Your task to perform on an android device: Open network settings Image 0: 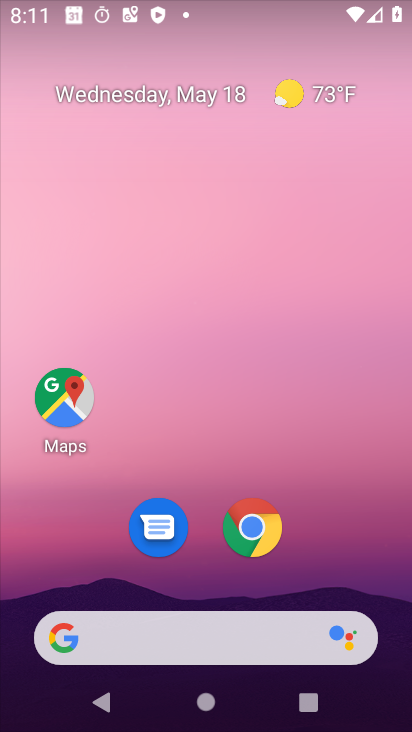
Step 0: drag from (389, 693) to (362, 72)
Your task to perform on an android device: Open network settings Image 1: 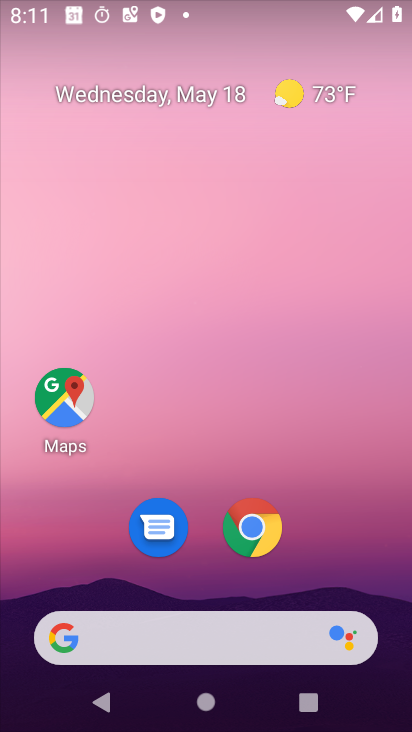
Step 1: drag from (388, 669) to (399, 1)
Your task to perform on an android device: Open network settings Image 2: 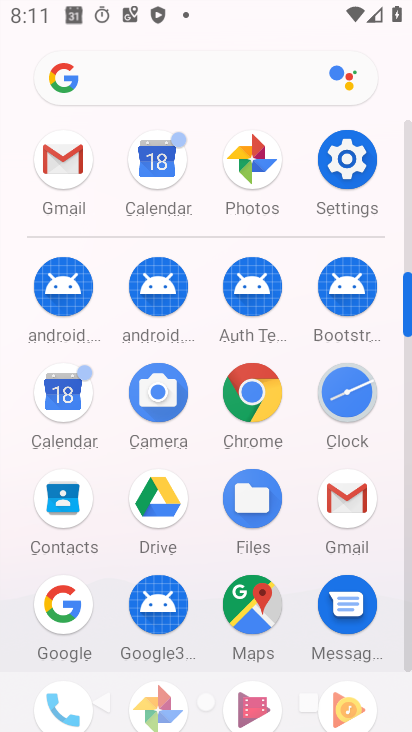
Step 2: click (349, 158)
Your task to perform on an android device: Open network settings Image 3: 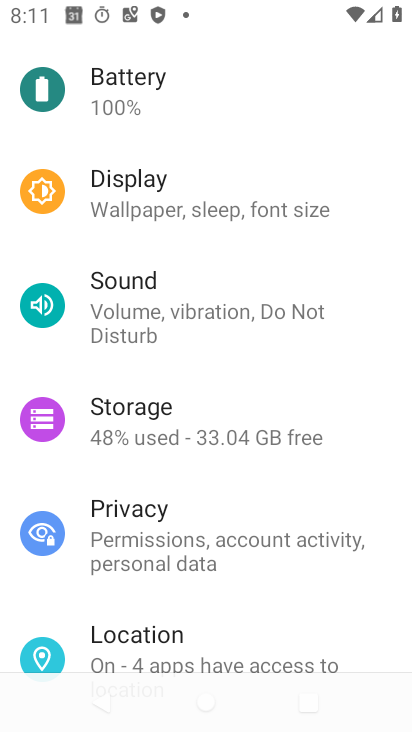
Step 3: drag from (331, 82) to (357, 662)
Your task to perform on an android device: Open network settings Image 4: 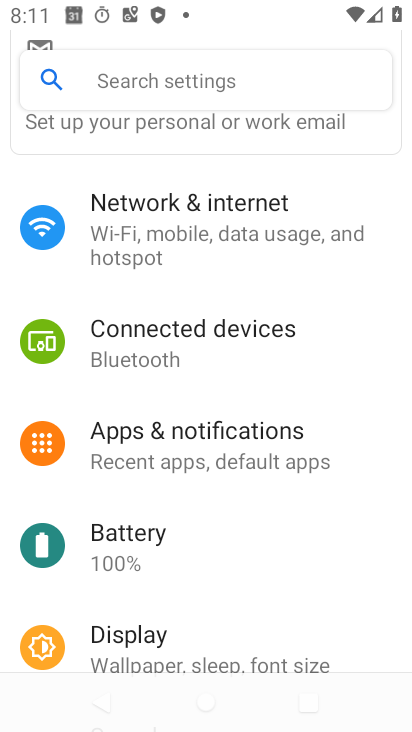
Step 4: click (143, 210)
Your task to perform on an android device: Open network settings Image 5: 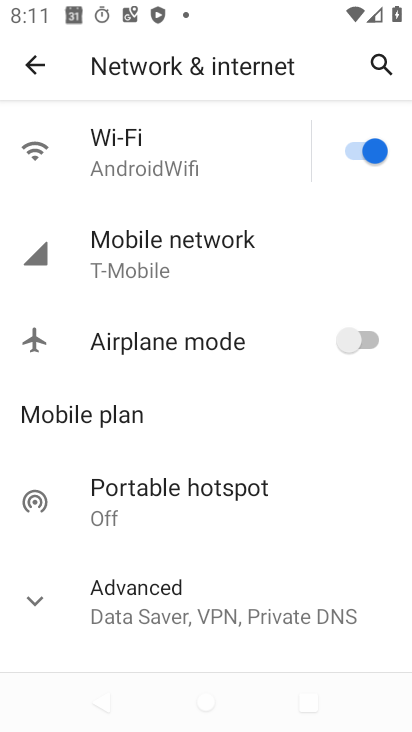
Step 5: click (151, 260)
Your task to perform on an android device: Open network settings Image 6: 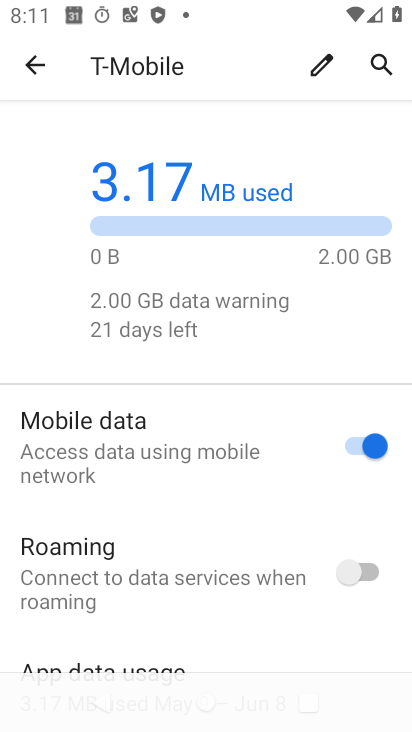
Step 6: task complete